Your task to perform on an android device: delete a single message in the gmail app Image 0: 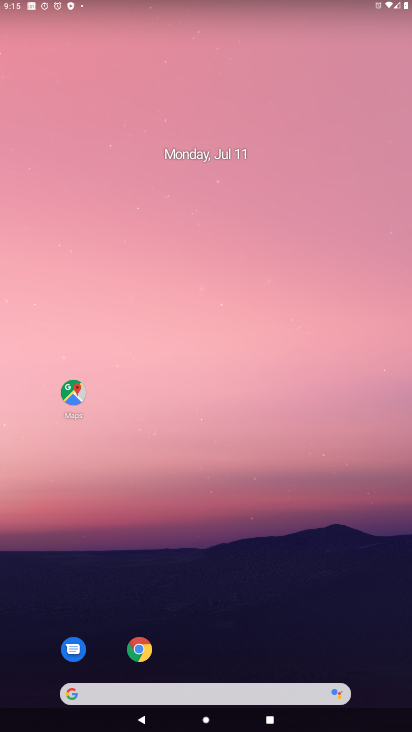
Step 0: drag from (191, 683) to (234, 27)
Your task to perform on an android device: delete a single message in the gmail app Image 1: 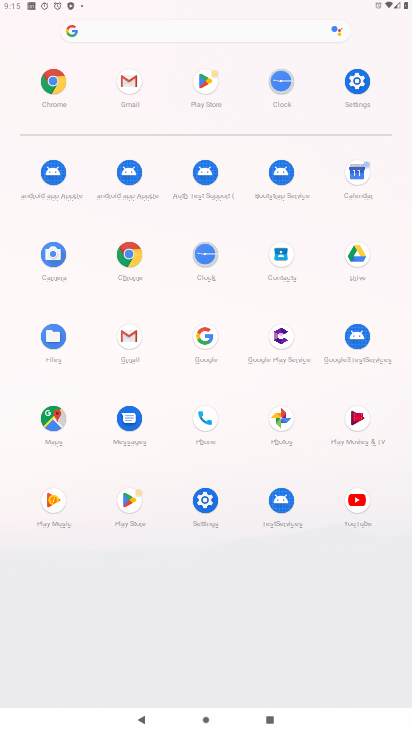
Step 1: click (128, 81)
Your task to perform on an android device: delete a single message in the gmail app Image 2: 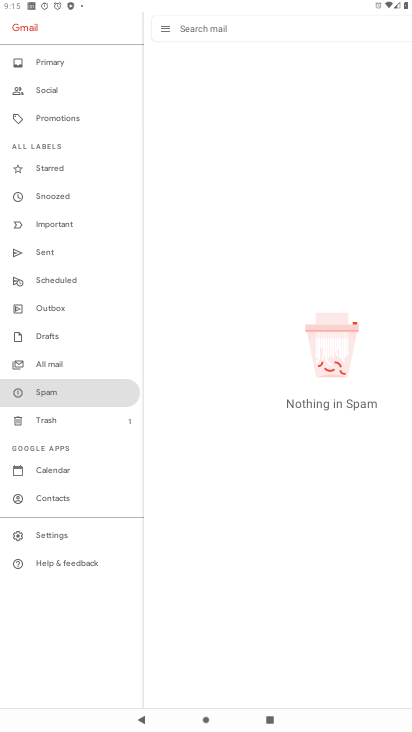
Step 2: click (63, 359)
Your task to perform on an android device: delete a single message in the gmail app Image 3: 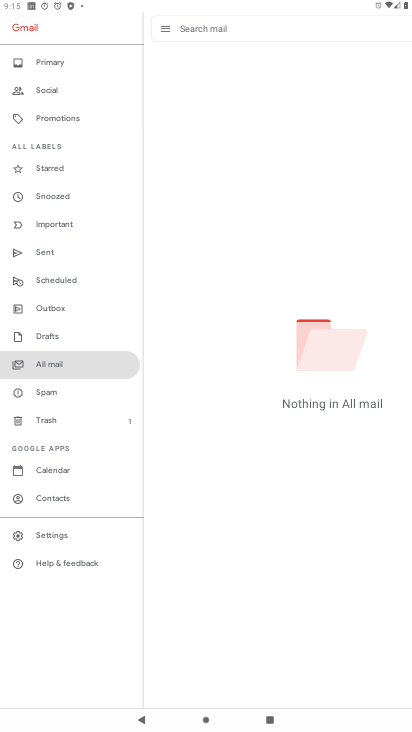
Step 3: click (63, 67)
Your task to perform on an android device: delete a single message in the gmail app Image 4: 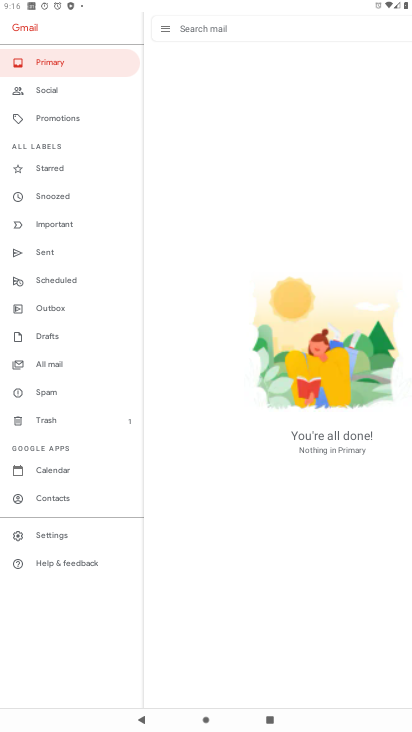
Step 4: task complete